Your task to perform on an android device: toggle location history Image 0: 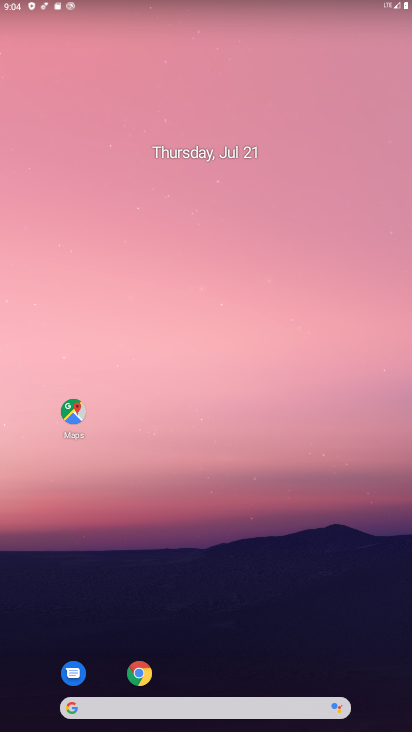
Step 0: drag from (203, 668) to (202, 246)
Your task to perform on an android device: toggle location history Image 1: 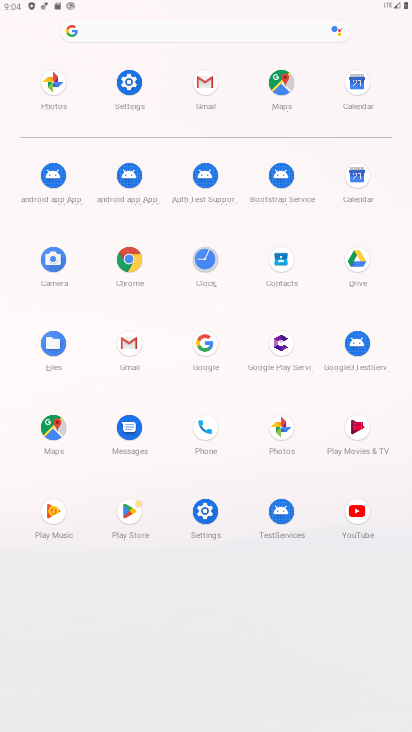
Step 1: click (121, 74)
Your task to perform on an android device: toggle location history Image 2: 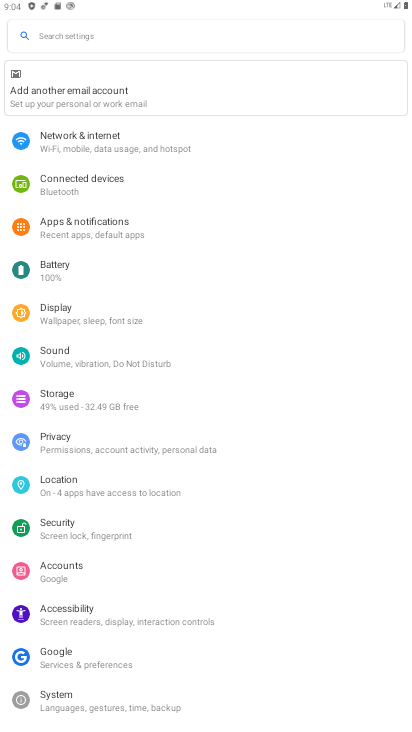
Step 2: click (109, 498)
Your task to perform on an android device: toggle location history Image 3: 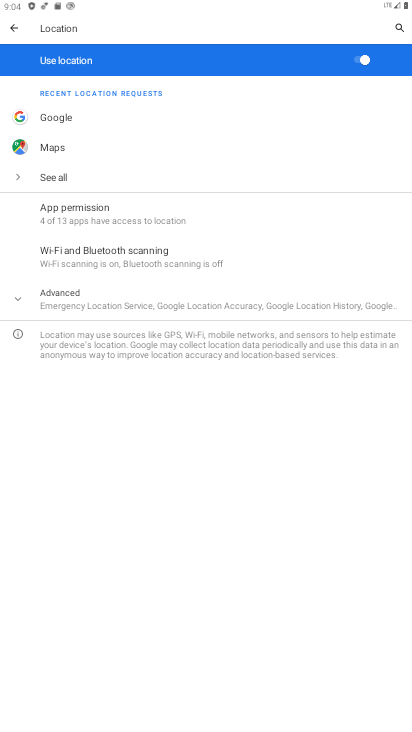
Step 3: click (183, 311)
Your task to perform on an android device: toggle location history Image 4: 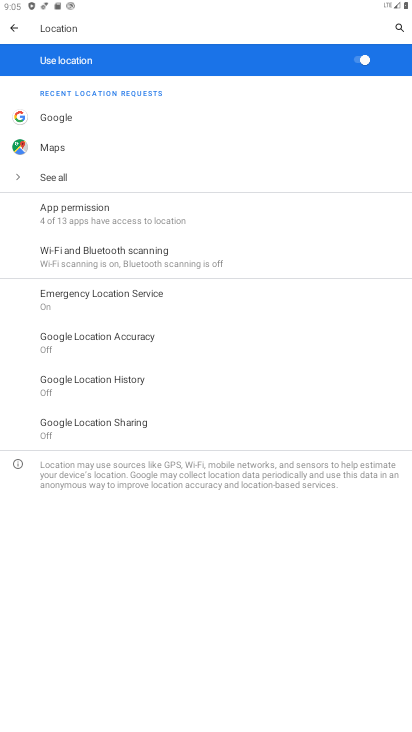
Step 4: click (100, 382)
Your task to perform on an android device: toggle location history Image 5: 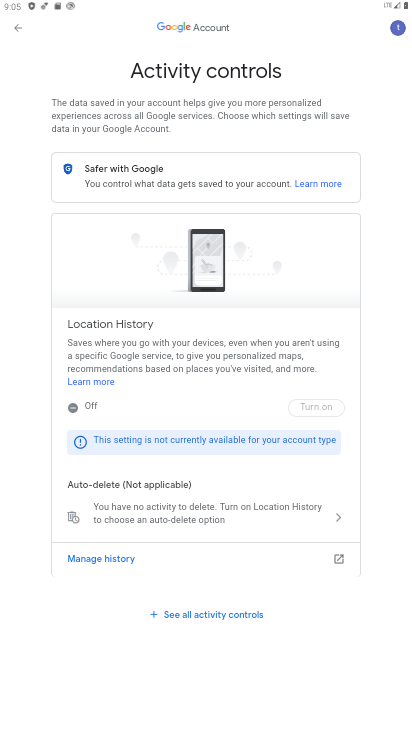
Step 5: click (329, 408)
Your task to perform on an android device: toggle location history Image 6: 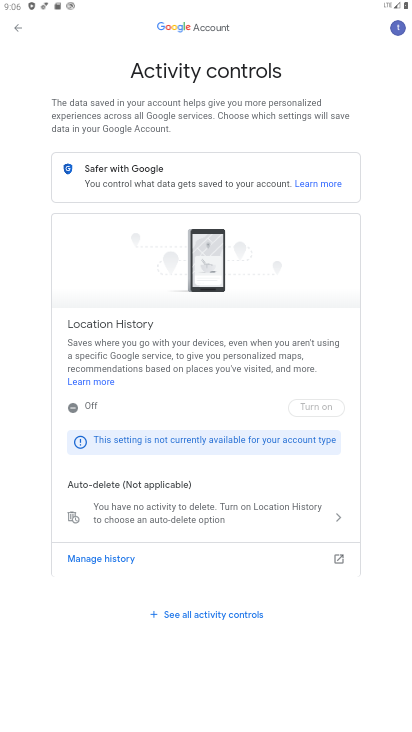
Step 6: task complete